Your task to perform on an android device: delete browsing data in the chrome app Image 0: 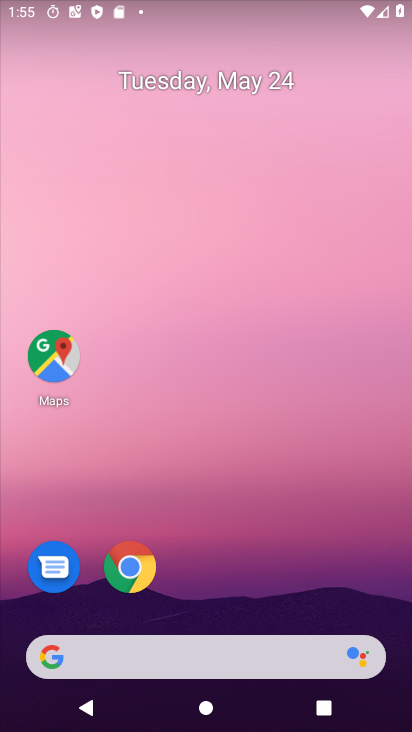
Step 0: drag from (202, 582) to (236, 62)
Your task to perform on an android device: delete browsing data in the chrome app Image 1: 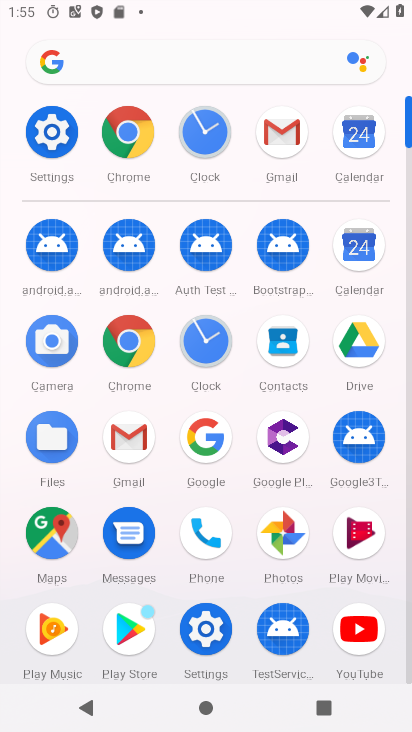
Step 1: click (117, 354)
Your task to perform on an android device: delete browsing data in the chrome app Image 2: 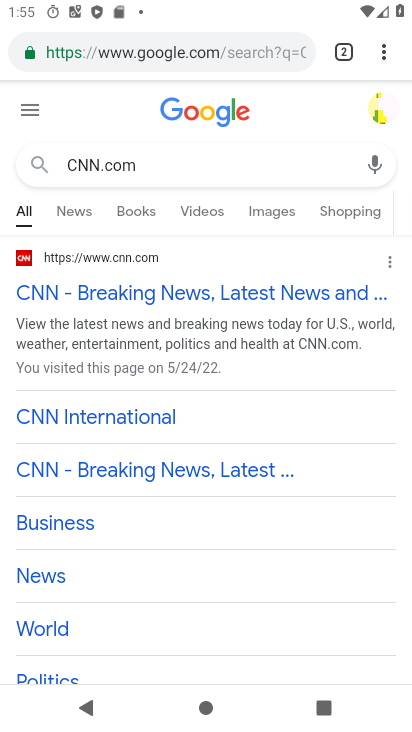
Step 2: click (384, 52)
Your task to perform on an android device: delete browsing data in the chrome app Image 3: 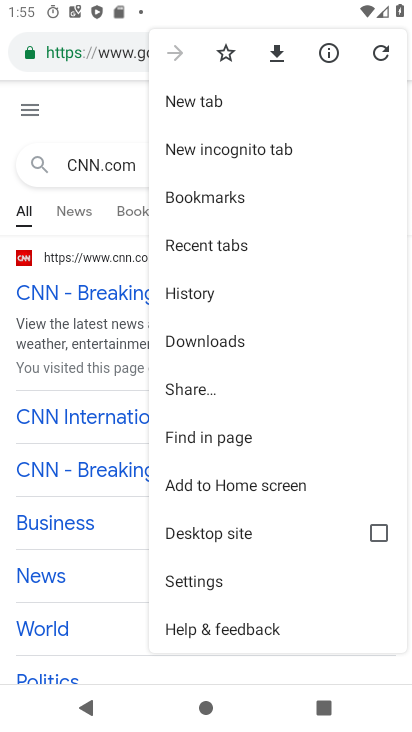
Step 3: click (194, 289)
Your task to perform on an android device: delete browsing data in the chrome app Image 4: 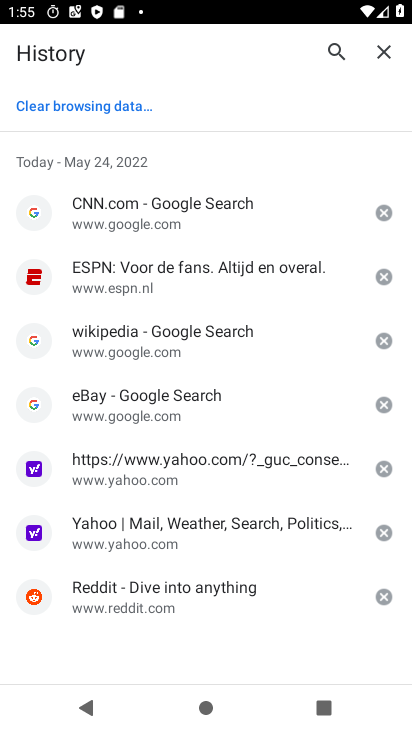
Step 4: click (104, 110)
Your task to perform on an android device: delete browsing data in the chrome app Image 5: 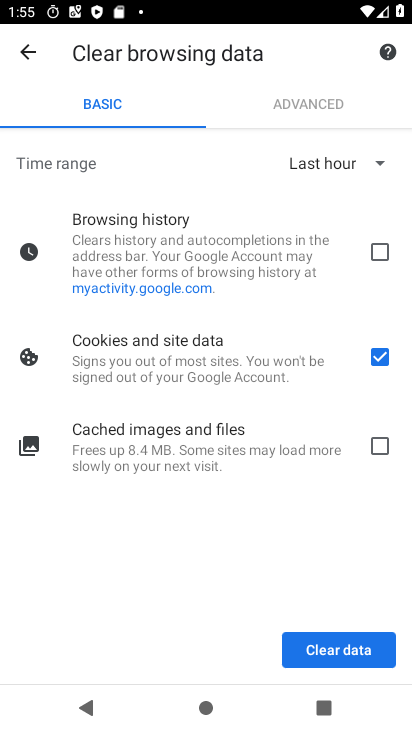
Step 5: click (383, 256)
Your task to perform on an android device: delete browsing data in the chrome app Image 6: 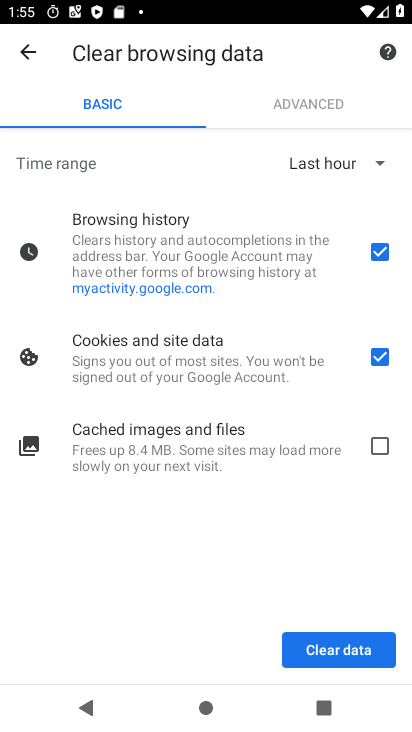
Step 6: click (375, 447)
Your task to perform on an android device: delete browsing data in the chrome app Image 7: 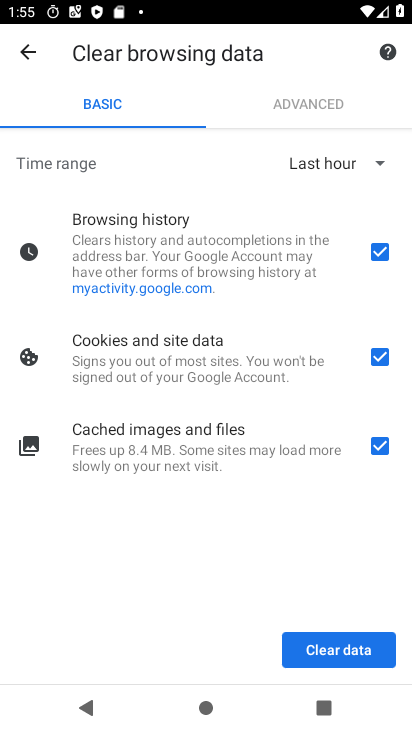
Step 7: click (360, 653)
Your task to perform on an android device: delete browsing data in the chrome app Image 8: 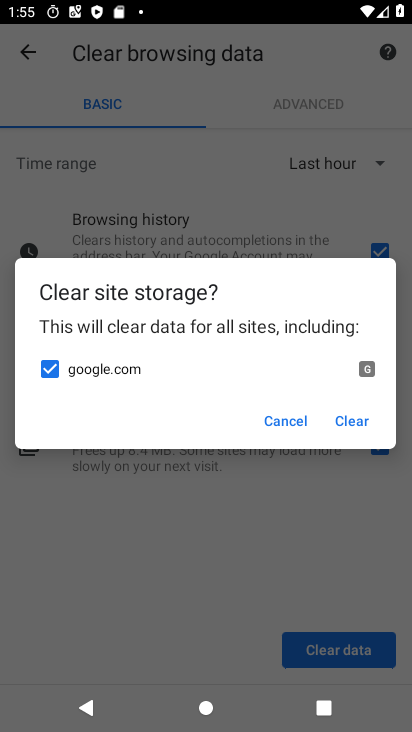
Step 8: click (360, 429)
Your task to perform on an android device: delete browsing data in the chrome app Image 9: 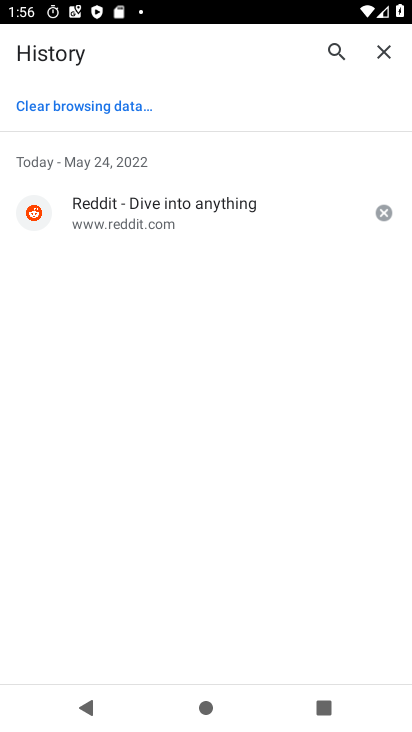
Step 9: task complete